Your task to perform on an android device: change text size in settings app Image 0: 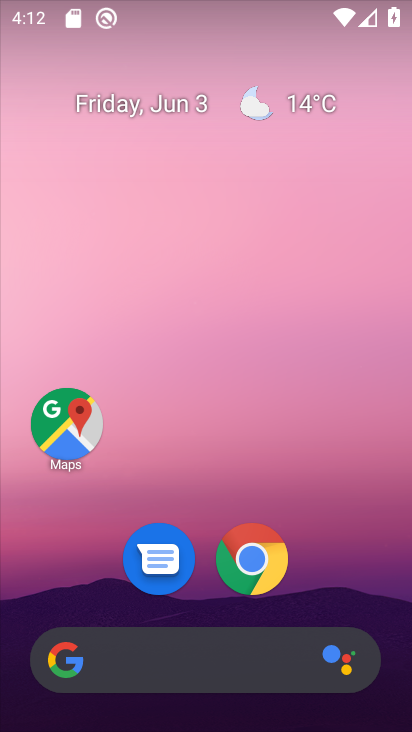
Step 0: drag from (224, 631) to (107, 61)
Your task to perform on an android device: change text size in settings app Image 1: 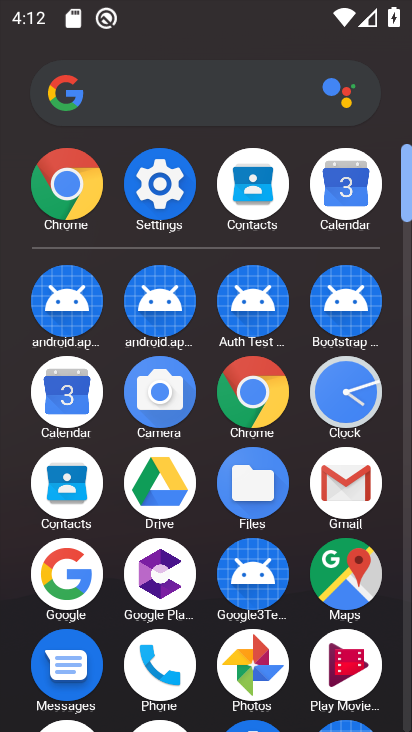
Step 1: drag from (138, 197) to (150, 14)
Your task to perform on an android device: change text size in settings app Image 2: 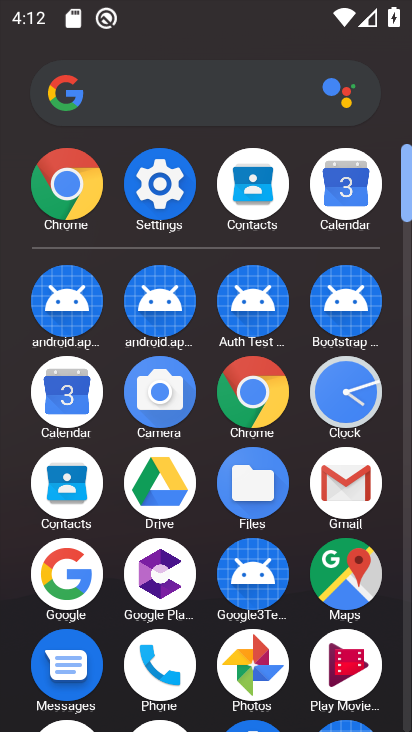
Step 2: click (167, 187)
Your task to perform on an android device: change text size in settings app Image 3: 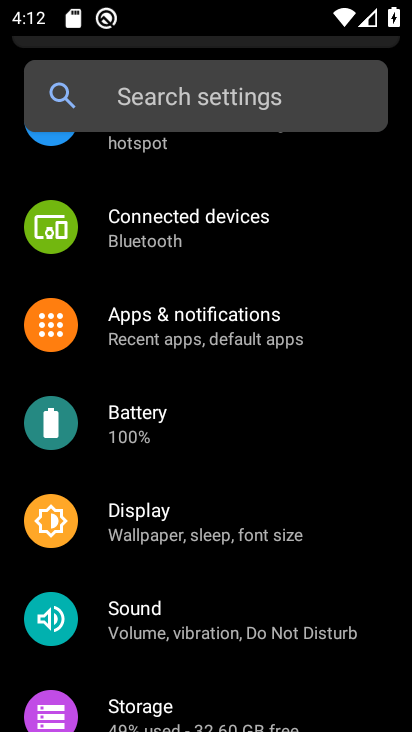
Step 3: click (147, 192)
Your task to perform on an android device: change text size in settings app Image 4: 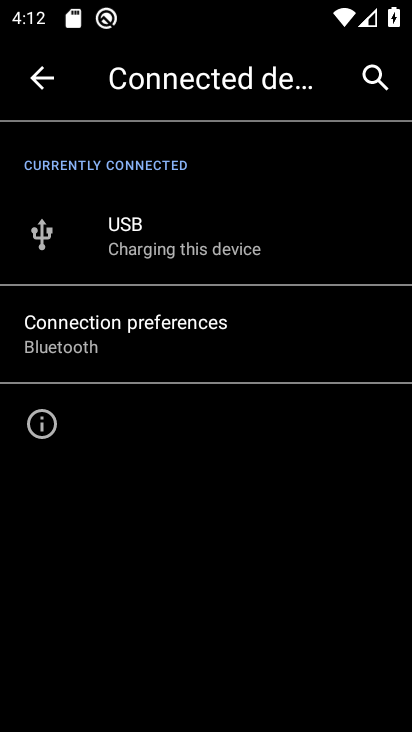
Step 4: click (35, 78)
Your task to perform on an android device: change text size in settings app Image 5: 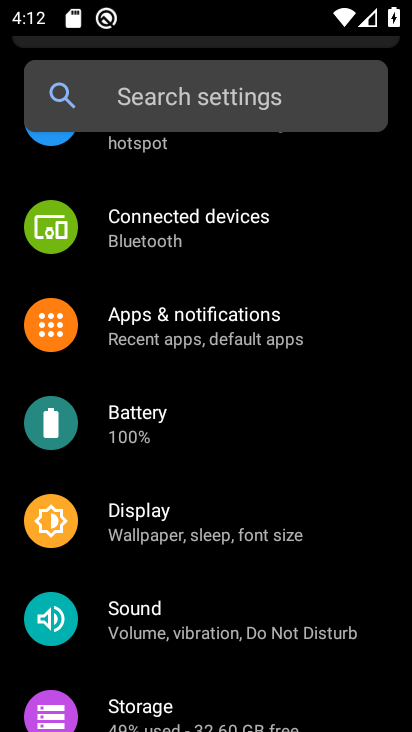
Step 5: click (135, 531)
Your task to perform on an android device: change text size in settings app Image 6: 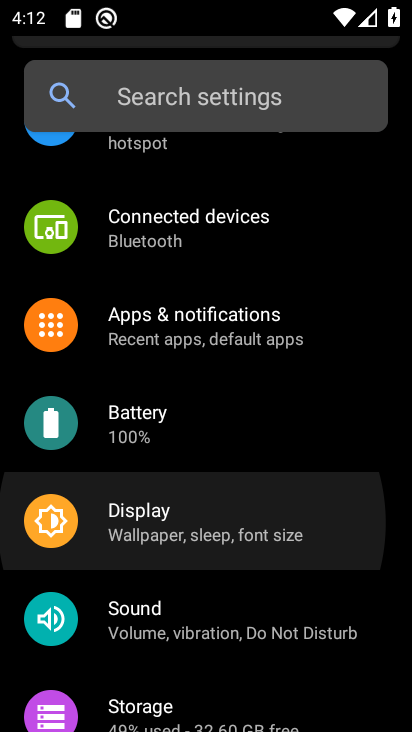
Step 6: click (135, 531)
Your task to perform on an android device: change text size in settings app Image 7: 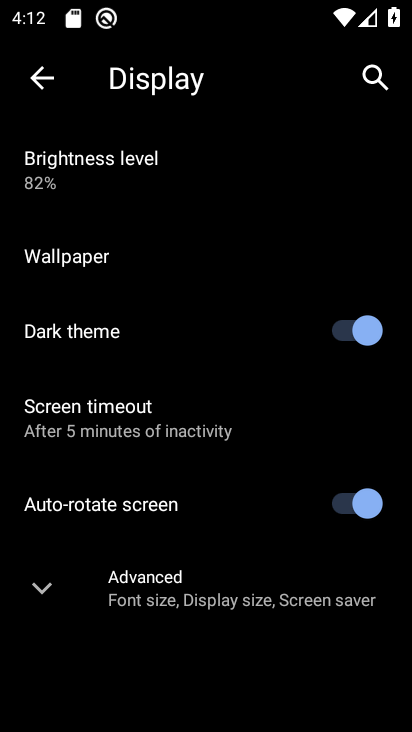
Step 7: click (140, 523)
Your task to perform on an android device: change text size in settings app Image 8: 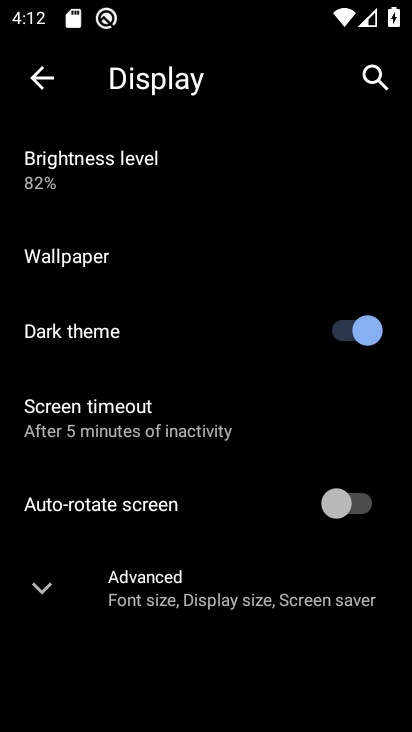
Step 8: click (157, 577)
Your task to perform on an android device: change text size in settings app Image 9: 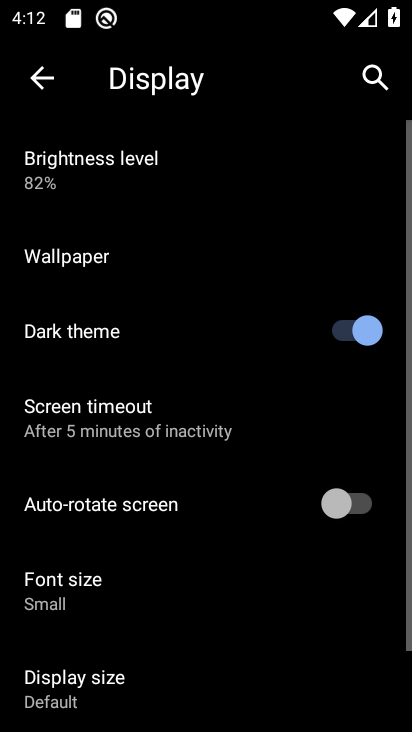
Step 9: click (365, 330)
Your task to perform on an android device: change text size in settings app Image 10: 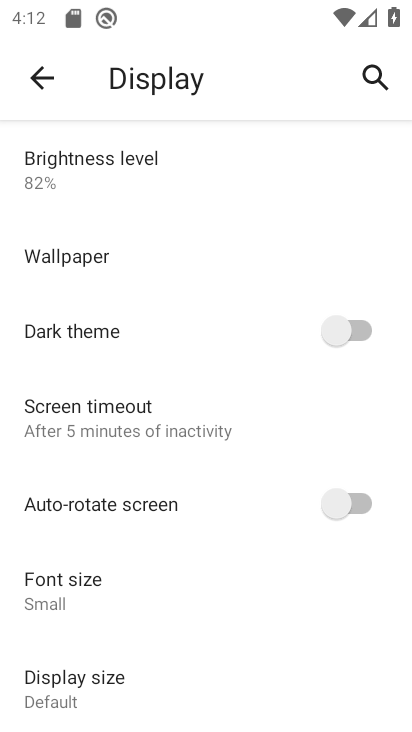
Step 10: click (43, 589)
Your task to perform on an android device: change text size in settings app Image 11: 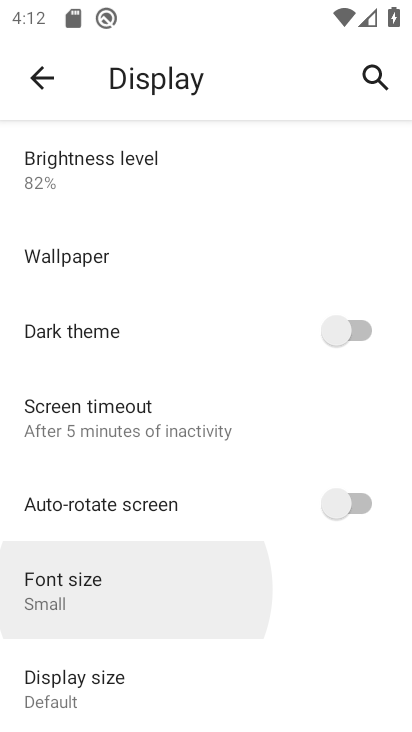
Step 11: click (42, 588)
Your task to perform on an android device: change text size in settings app Image 12: 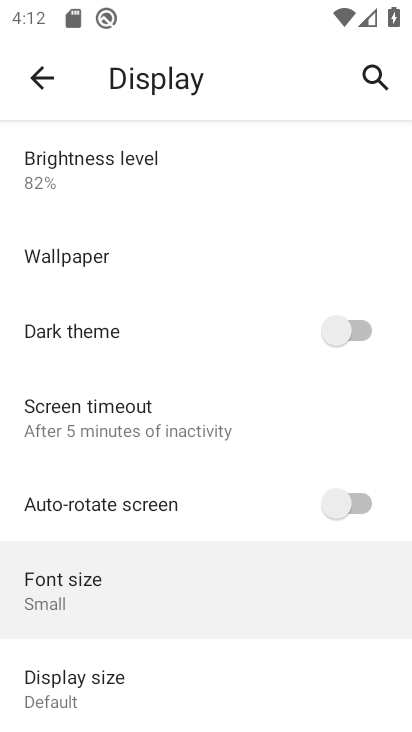
Step 12: click (42, 588)
Your task to perform on an android device: change text size in settings app Image 13: 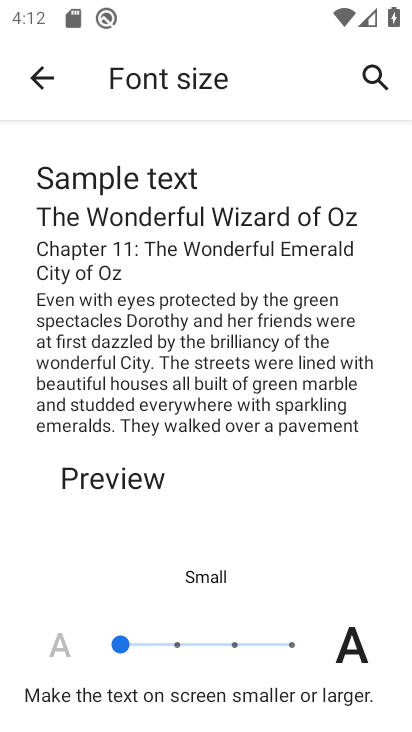
Step 13: click (177, 645)
Your task to perform on an android device: change text size in settings app Image 14: 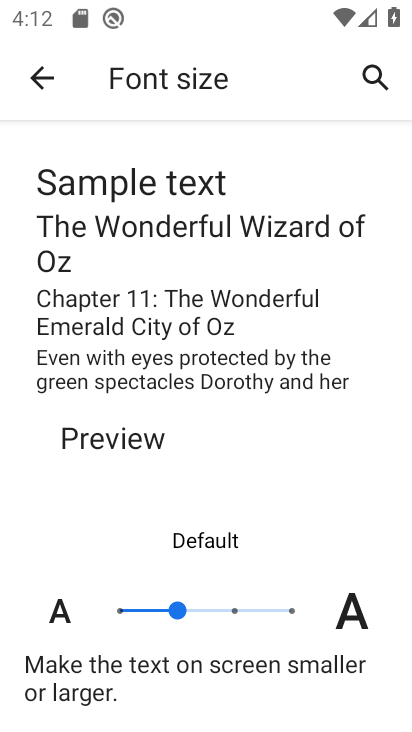
Step 14: task complete